Your task to perform on an android device: toggle airplane mode Image 0: 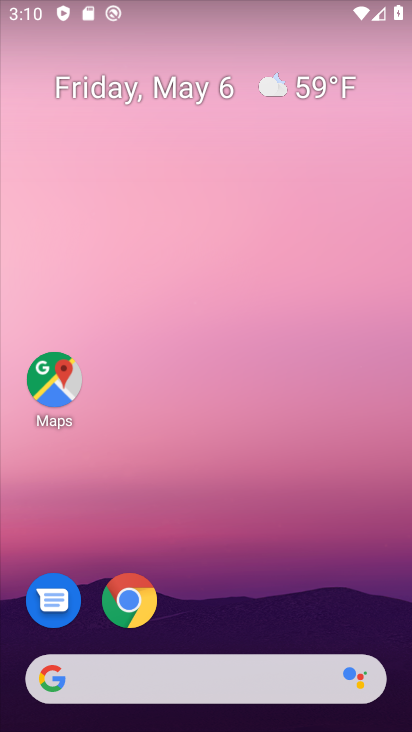
Step 0: drag from (232, 594) to (280, 9)
Your task to perform on an android device: toggle airplane mode Image 1: 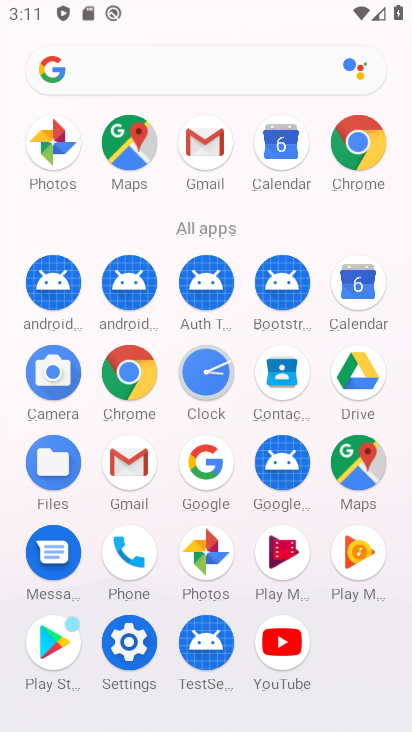
Step 1: click (135, 662)
Your task to perform on an android device: toggle airplane mode Image 2: 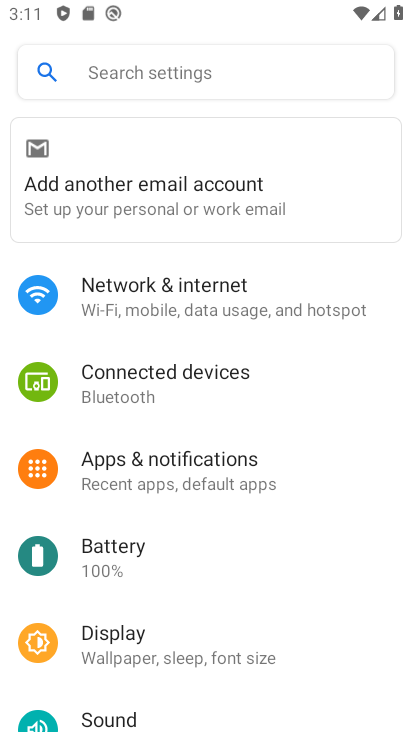
Step 2: click (181, 298)
Your task to perform on an android device: toggle airplane mode Image 3: 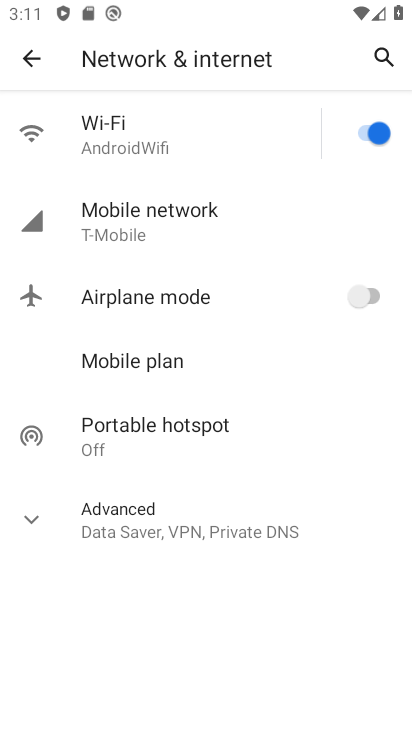
Step 3: click (214, 294)
Your task to perform on an android device: toggle airplane mode Image 4: 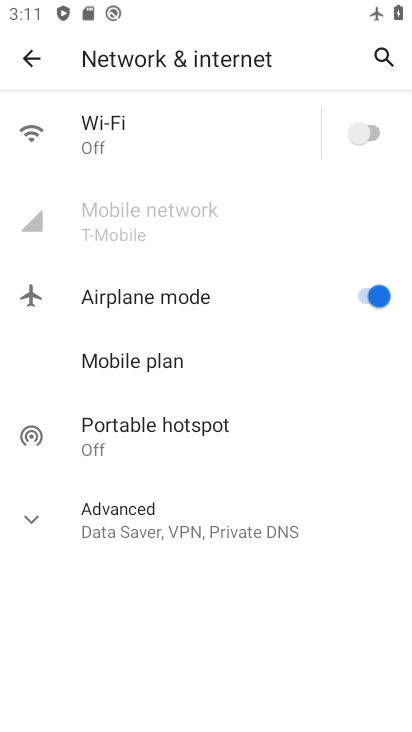
Step 4: task complete